Your task to perform on an android device: Search for hotels in Washington DC Image 0: 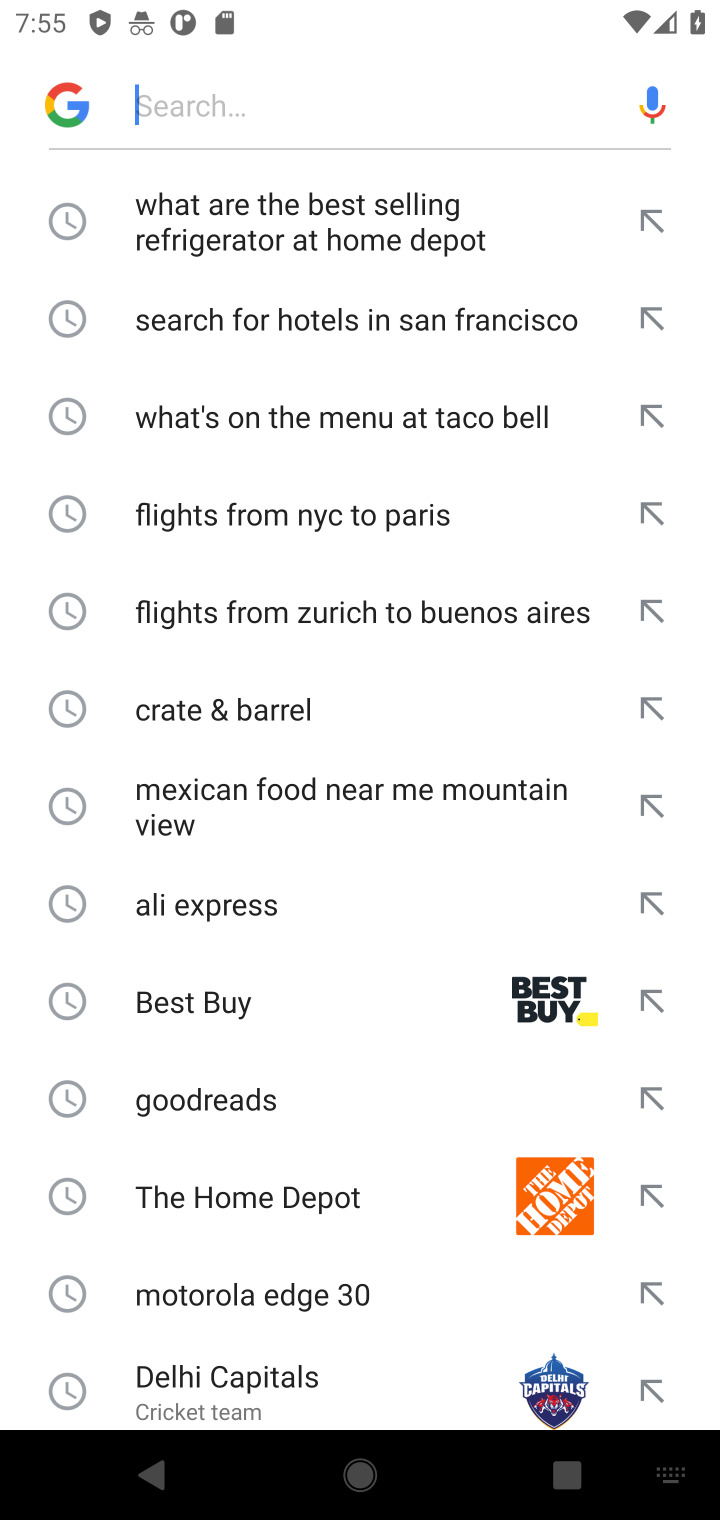
Step 0: click (356, 136)
Your task to perform on an android device: Search for hotels in Washington DC Image 1: 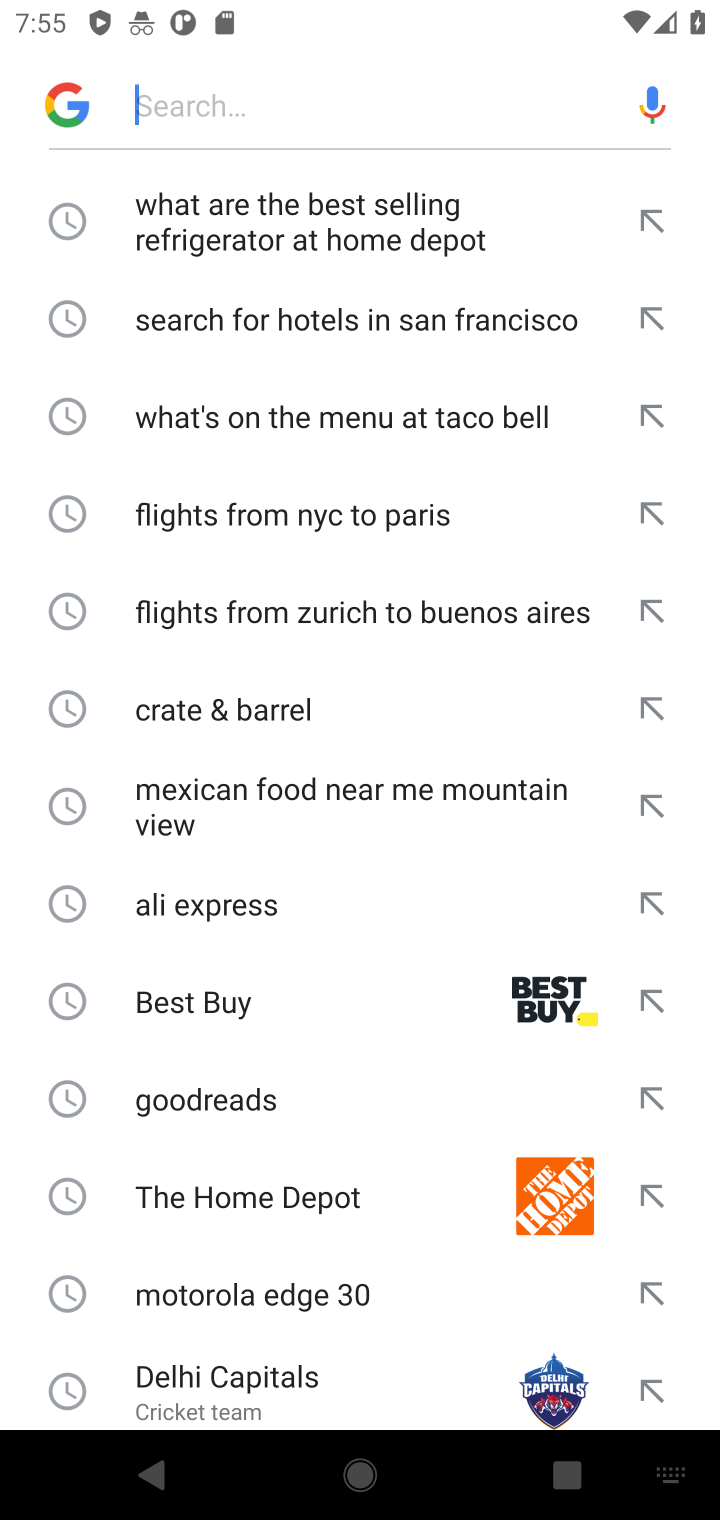
Step 1: type "hotels in Washington DC"
Your task to perform on an android device: Search for hotels in Washington DC Image 2: 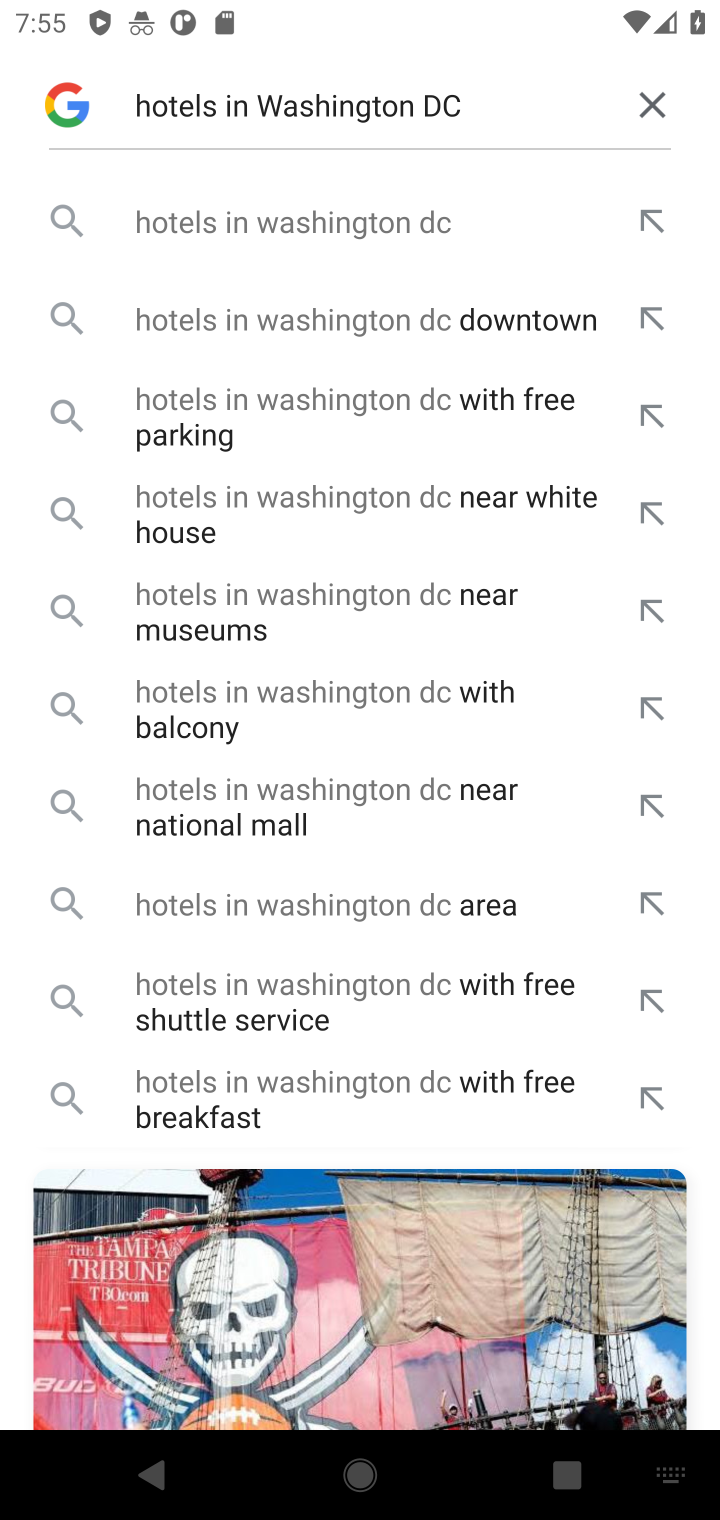
Step 2: press enter
Your task to perform on an android device: Search for hotels in Washington DC Image 3: 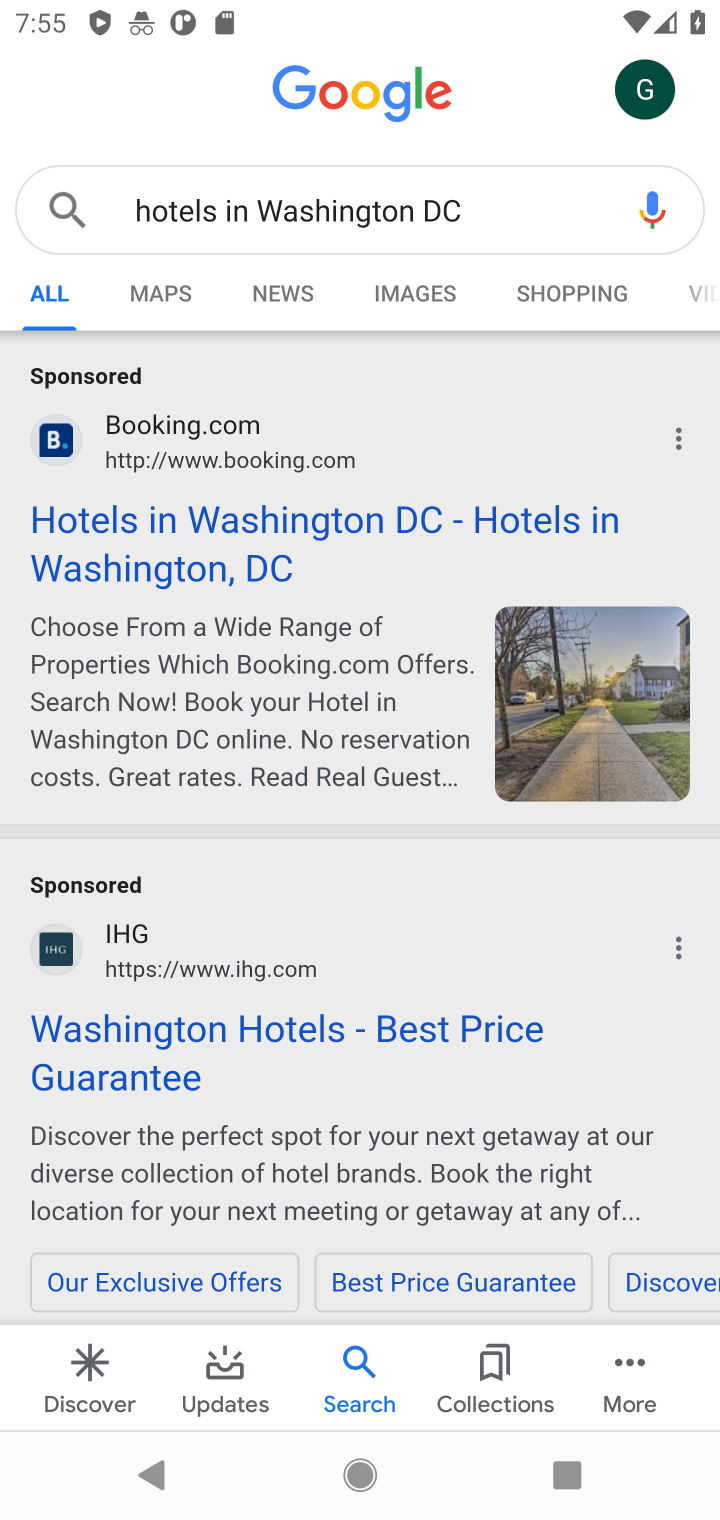
Step 3: drag from (445, 955) to (478, 502)
Your task to perform on an android device: Search for hotels in Washington DC Image 4: 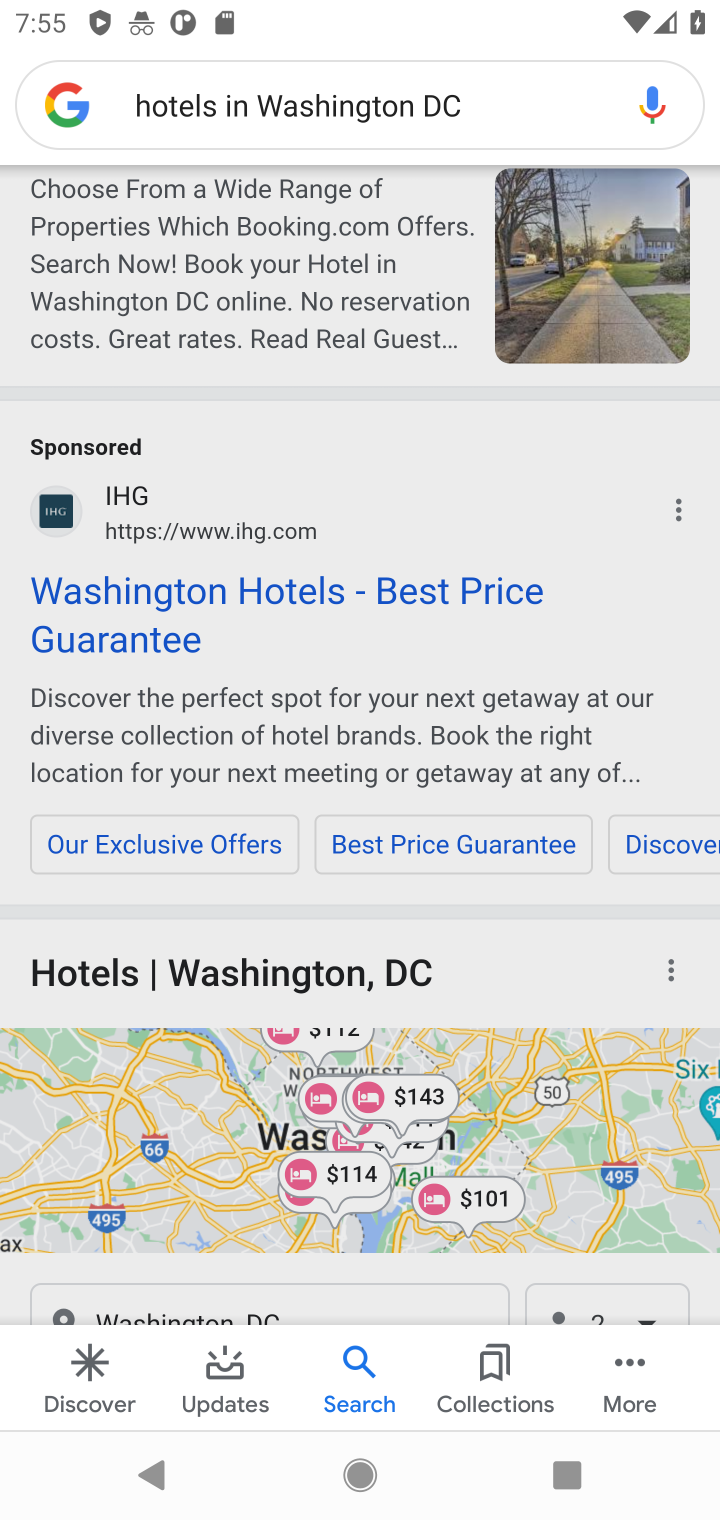
Step 4: drag from (496, 895) to (453, 523)
Your task to perform on an android device: Search for hotels in Washington DC Image 5: 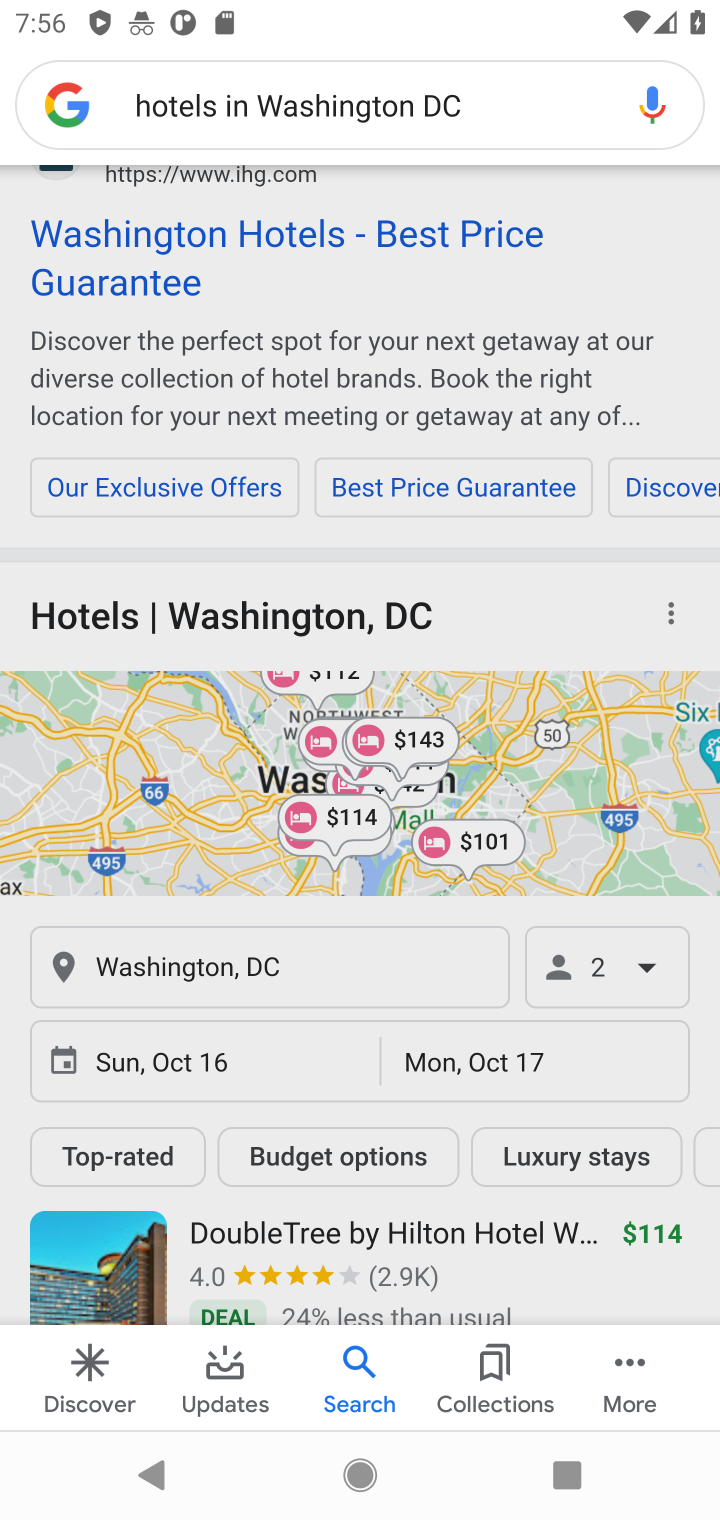
Step 5: drag from (459, 1129) to (375, 597)
Your task to perform on an android device: Search for hotels in Washington DC Image 6: 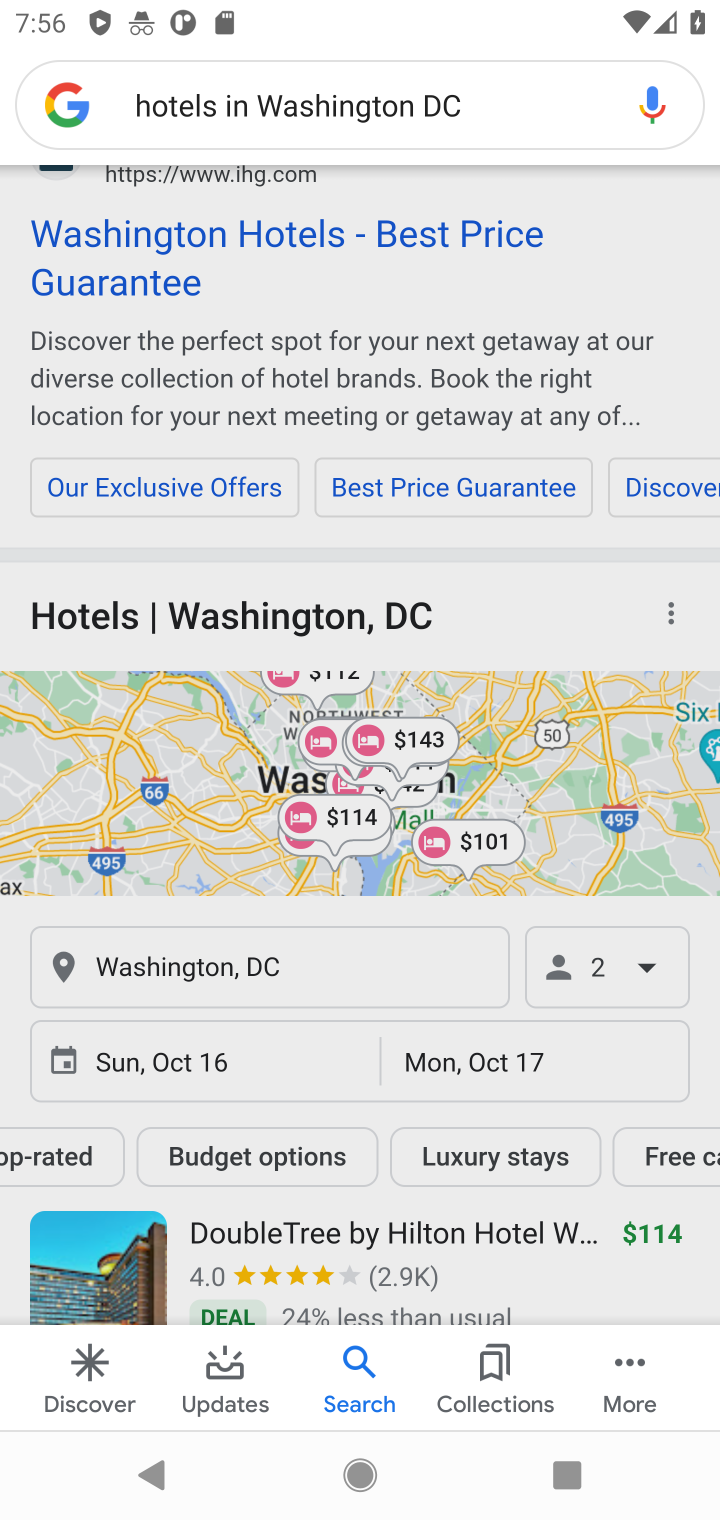
Step 6: drag from (507, 1269) to (440, 336)
Your task to perform on an android device: Search for hotels in Washington DC Image 7: 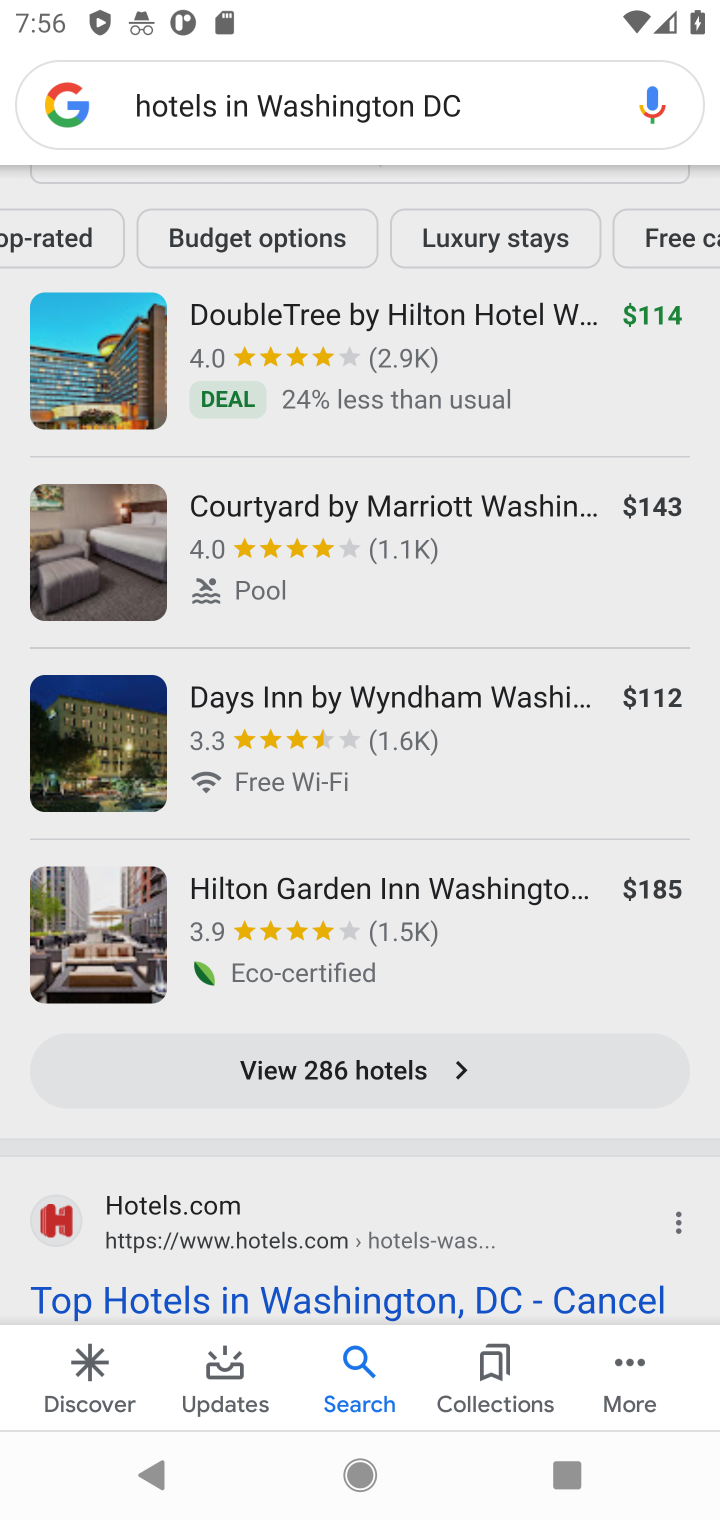
Step 7: click (371, 1078)
Your task to perform on an android device: Search for hotels in Washington DC Image 8: 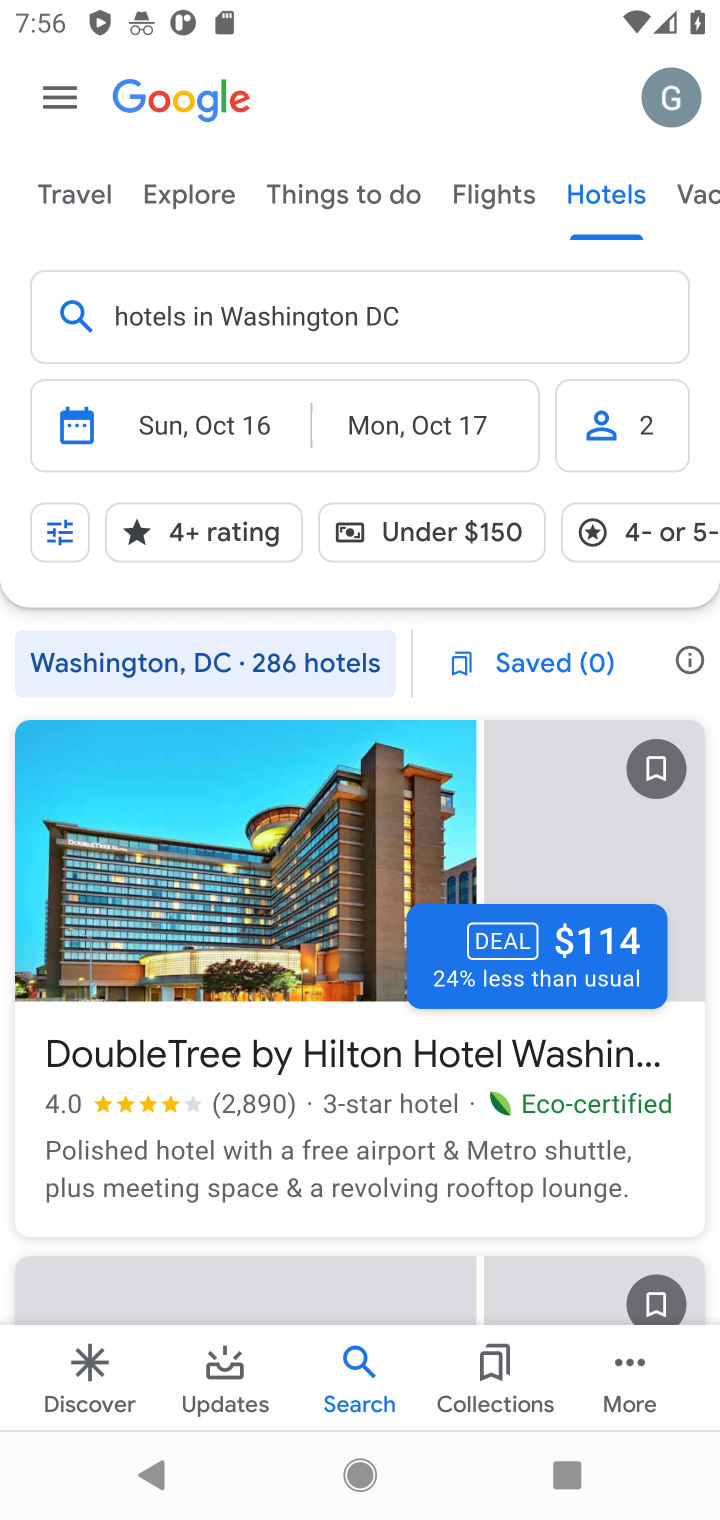
Step 8: task complete